Your task to perform on an android device: Is it going to rain today? Image 0: 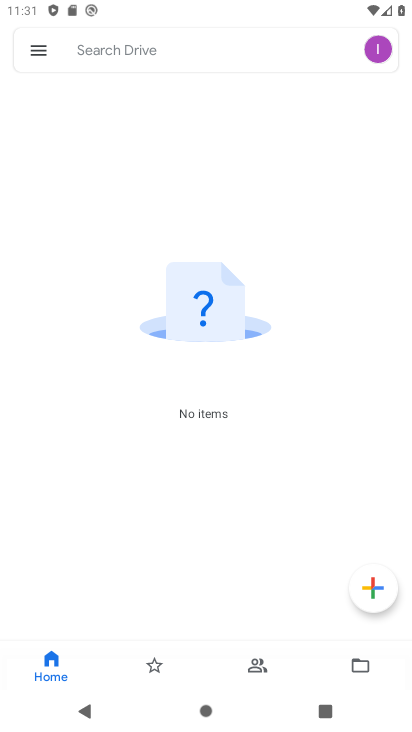
Step 0: press home button
Your task to perform on an android device: Is it going to rain today? Image 1: 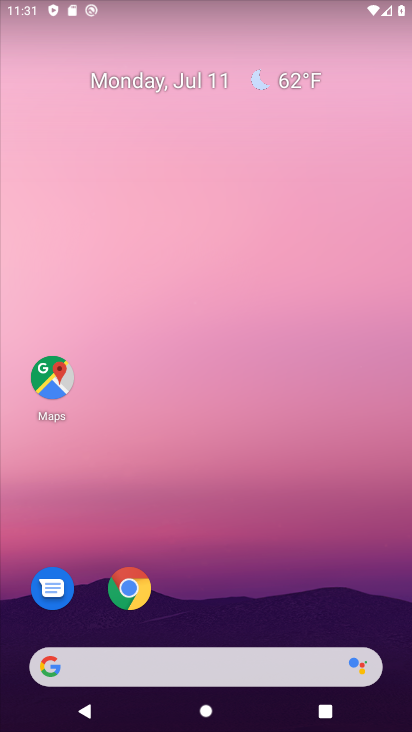
Step 1: drag from (191, 558) to (179, 59)
Your task to perform on an android device: Is it going to rain today? Image 2: 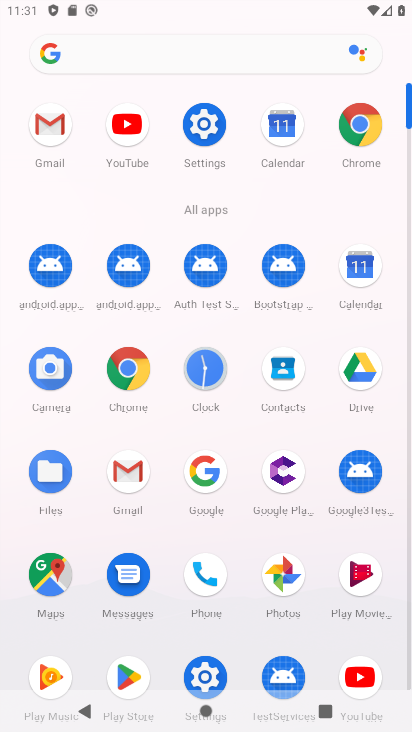
Step 2: click (206, 476)
Your task to perform on an android device: Is it going to rain today? Image 3: 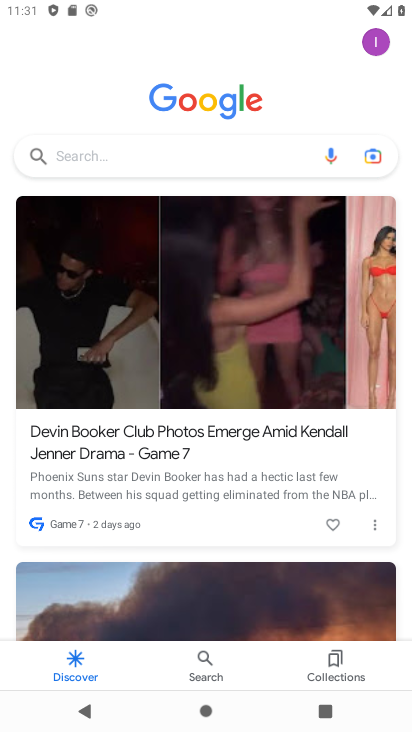
Step 3: click (127, 153)
Your task to perform on an android device: Is it going to rain today? Image 4: 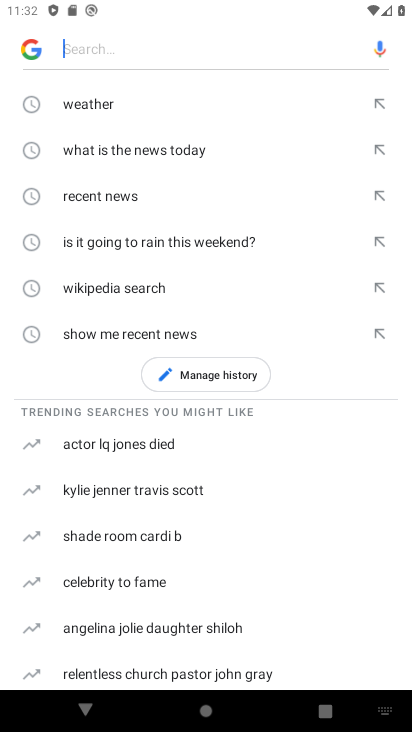
Step 4: click (118, 108)
Your task to perform on an android device: Is it going to rain today? Image 5: 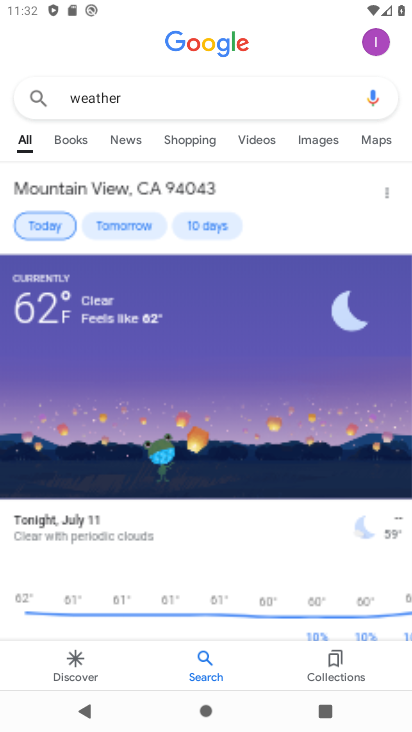
Step 5: task complete